Your task to perform on an android device: check storage Image 0: 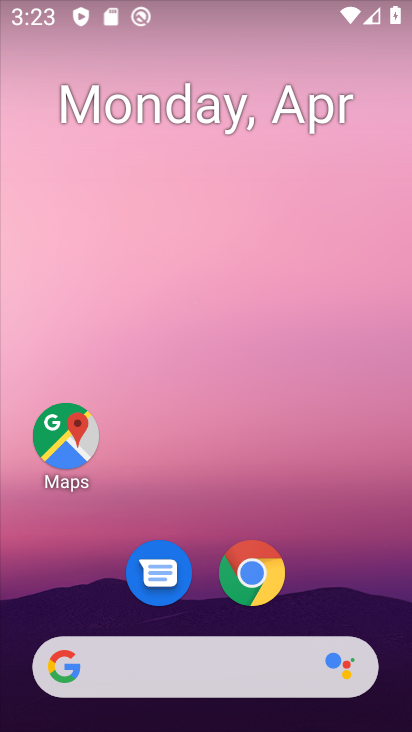
Step 0: drag from (222, 591) to (173, 155)
Your task to perform on an android device: check storage Image 1: 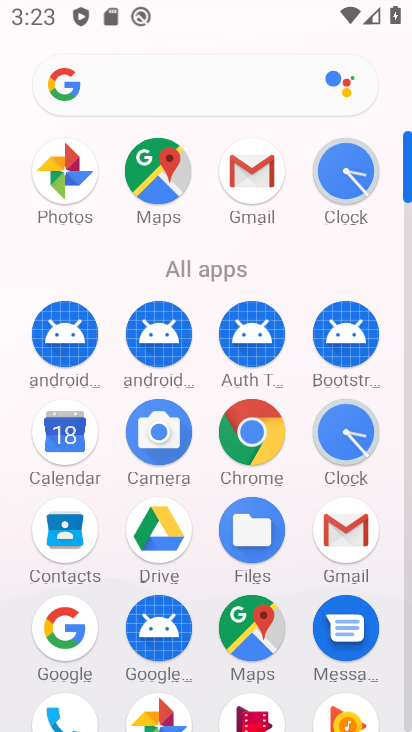
Step 1: drag from (204, 683) to (205, 236)
Your task to perform on an android device: check storage Image 2: 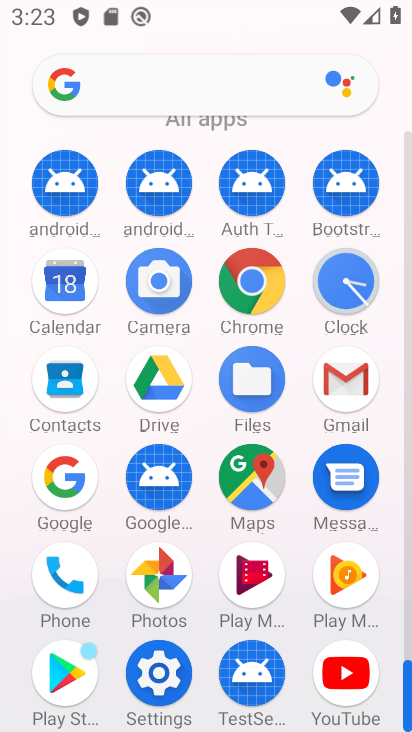
Step 2: click (159, 673)
Your task to perform on an android device: check storage Image 3: 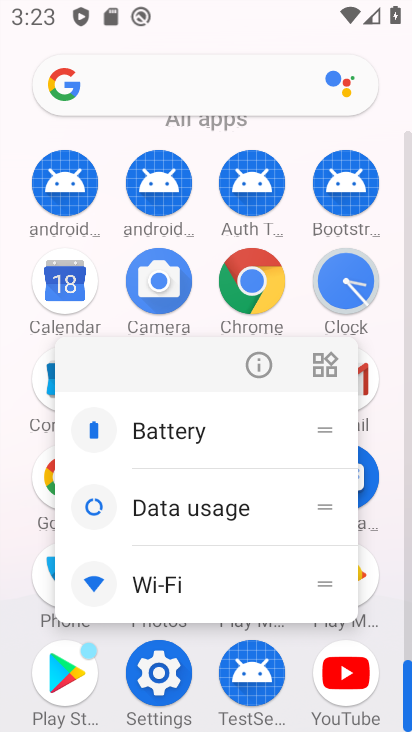
Step 3: click (162, 667)
Your task to perform on an android device: check storage Image 4: 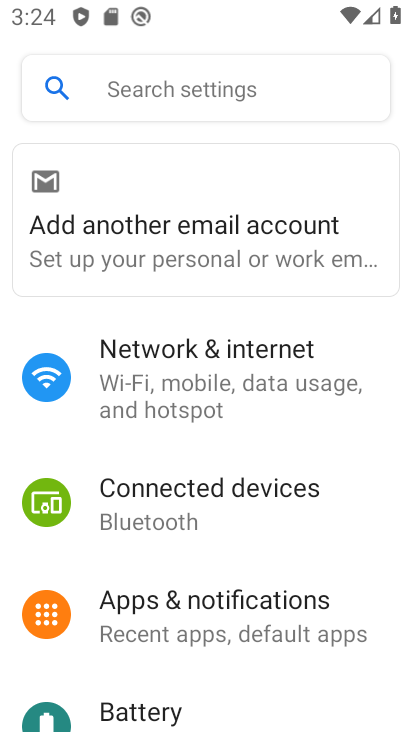
Step 4: drag from (236, 675) to (233, 327)
Your task to perform on an android device: check storage Image 5: 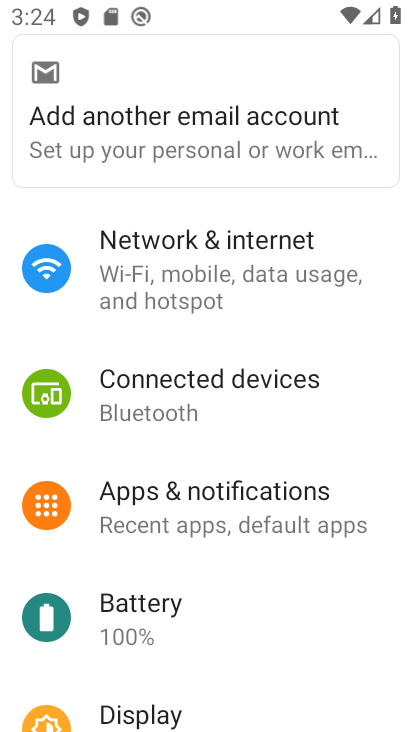
Step 5: drag from (257, 564) to (257, 209)
Your task to perform on an android device: check storage Image 6: 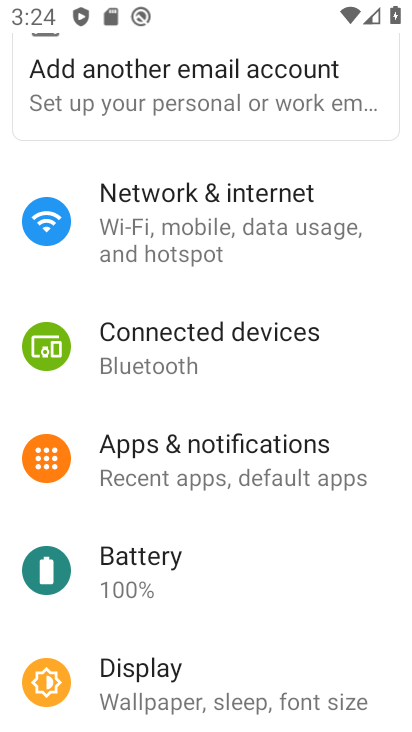
Step 6: drag from (209, 355) to (228, 154)
Your task to perform on an android device: check storage Image 7: 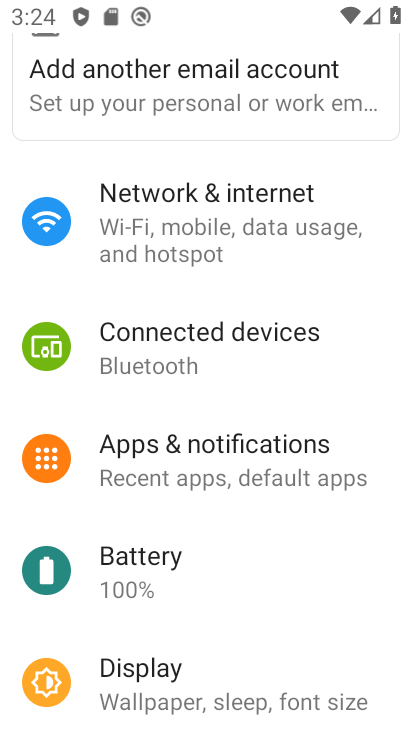
Step 7: drag from (231, 680) to (233, 297)
Your task to perform on an android device: check storage Image 8: 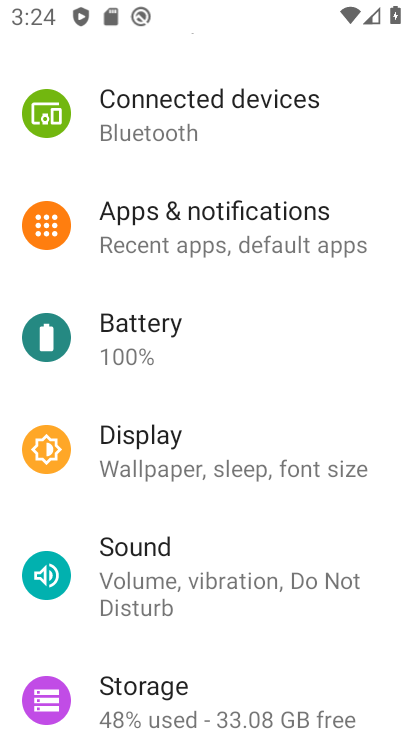
Step 8: click (164, 710)
Your task to perform on an android device: check storage Image 9: 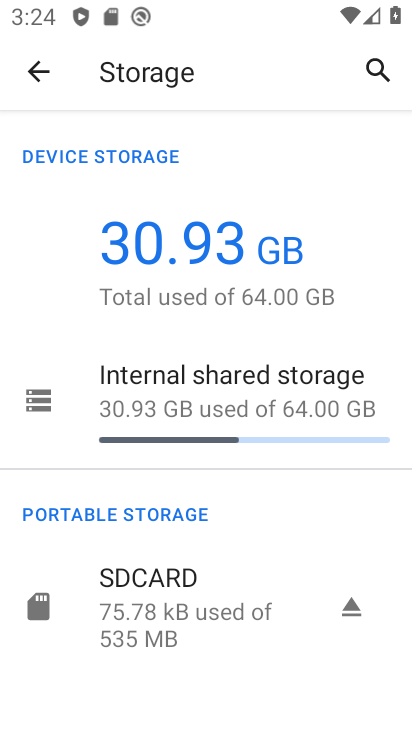
Step 9: task complete